Your task to perform on an android device: Open Google Chrome Image 0: 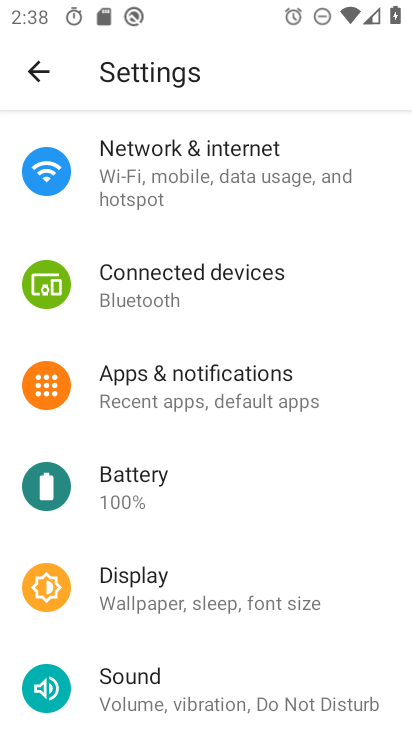
Step 0: press home button
Your task to perform on an android device: Open Google Chrome Image 1: 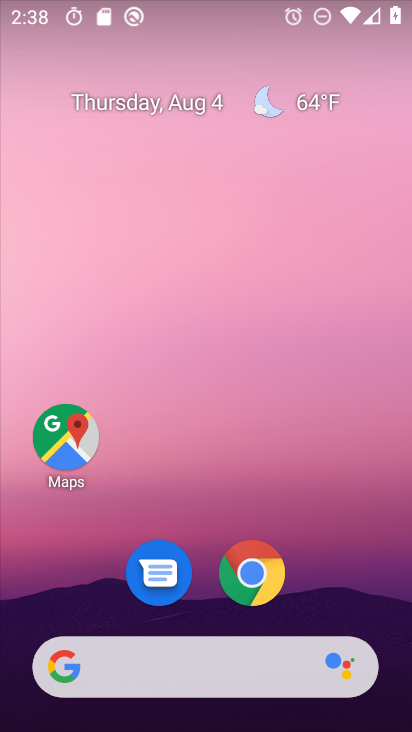
Step 1: drag from (352, 584) to (328, 2)
Your task to perform on an android device: Open Google Chrome Image 2: 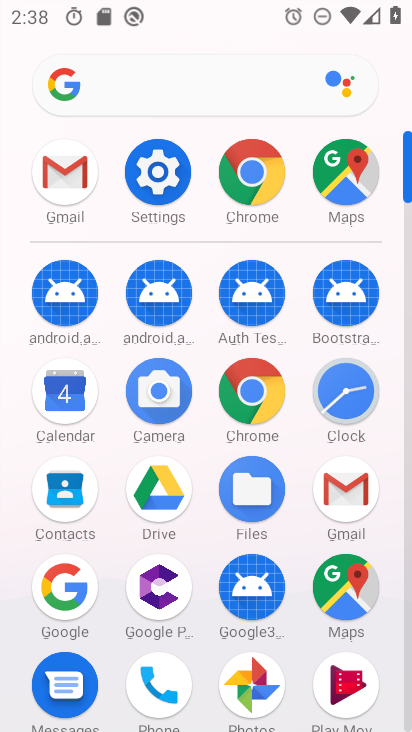
Step 2: click (264, 395)
Your task to perform on an android device: Open Google Chrome Image 3: 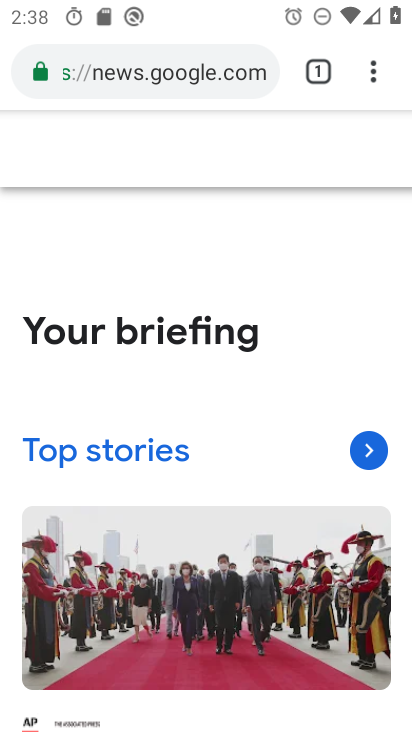
Step 3: task complete